Your task to perform on an android device: open app "PUBG MOBILE" Image 0: 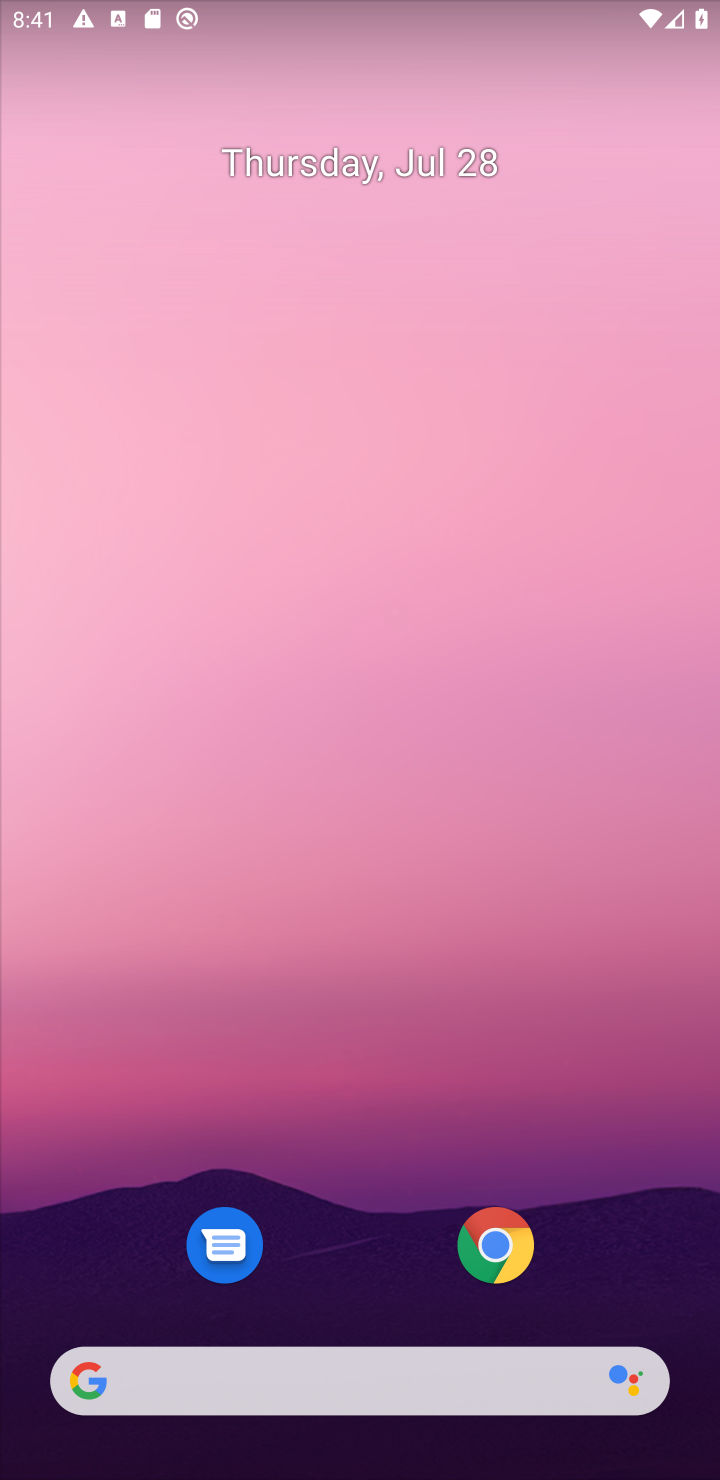
Step 0: press home button
Your task to perform on an android device: open app "PUBG MOBILE" Image 1: 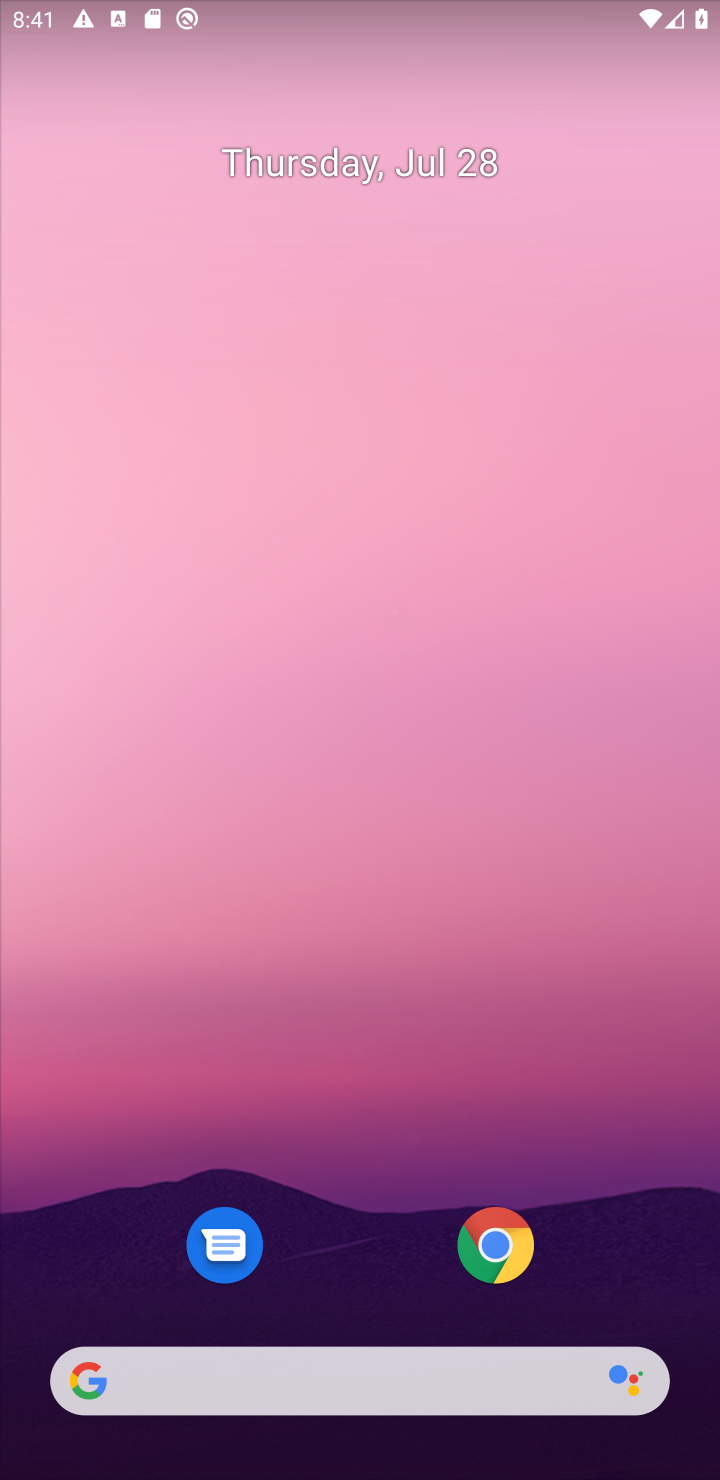
Step 1: drag from (369, 1274) to (497, 322)
Your task to perform on an android device: open app "PUBG MOBILE" Image 2: 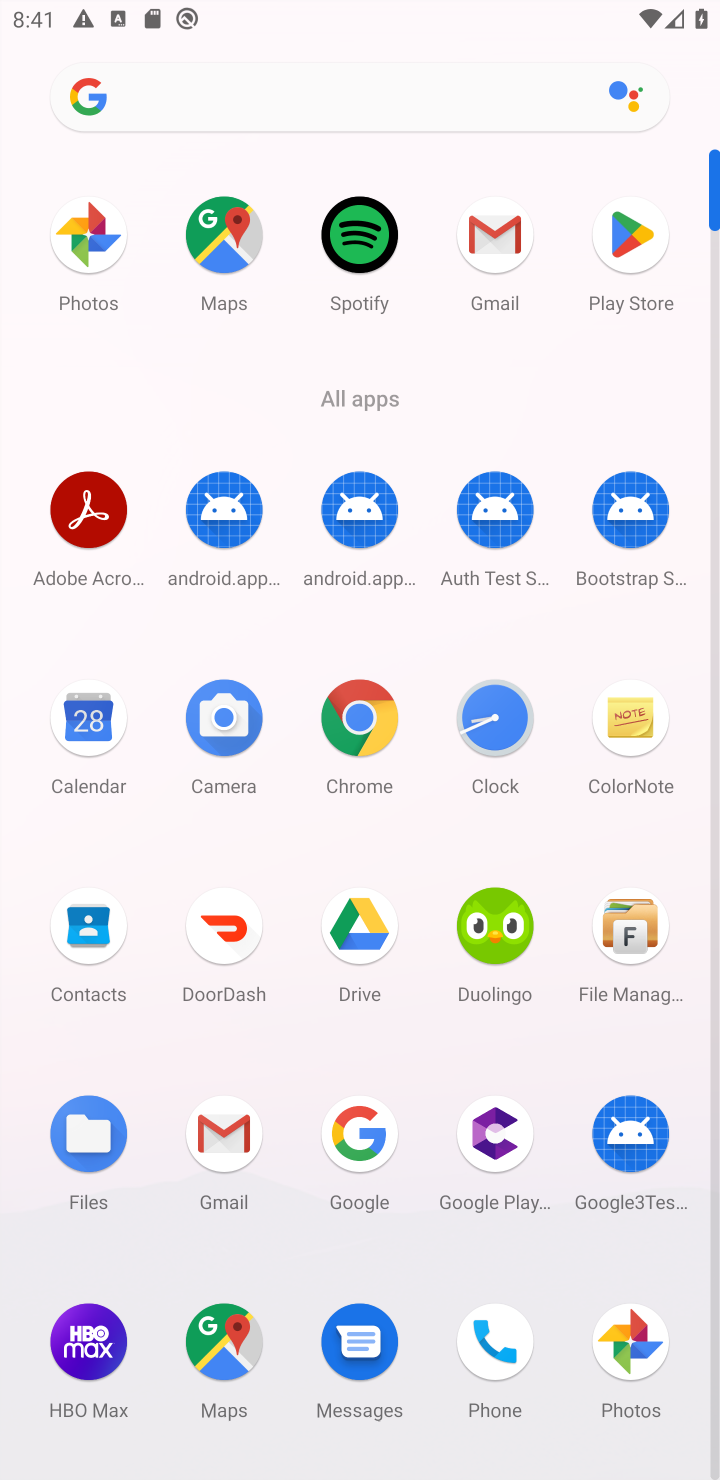
Step 2: click (616, 232)
Your task to perform on an android device: open app "PUBG MOBILE" Image 3: 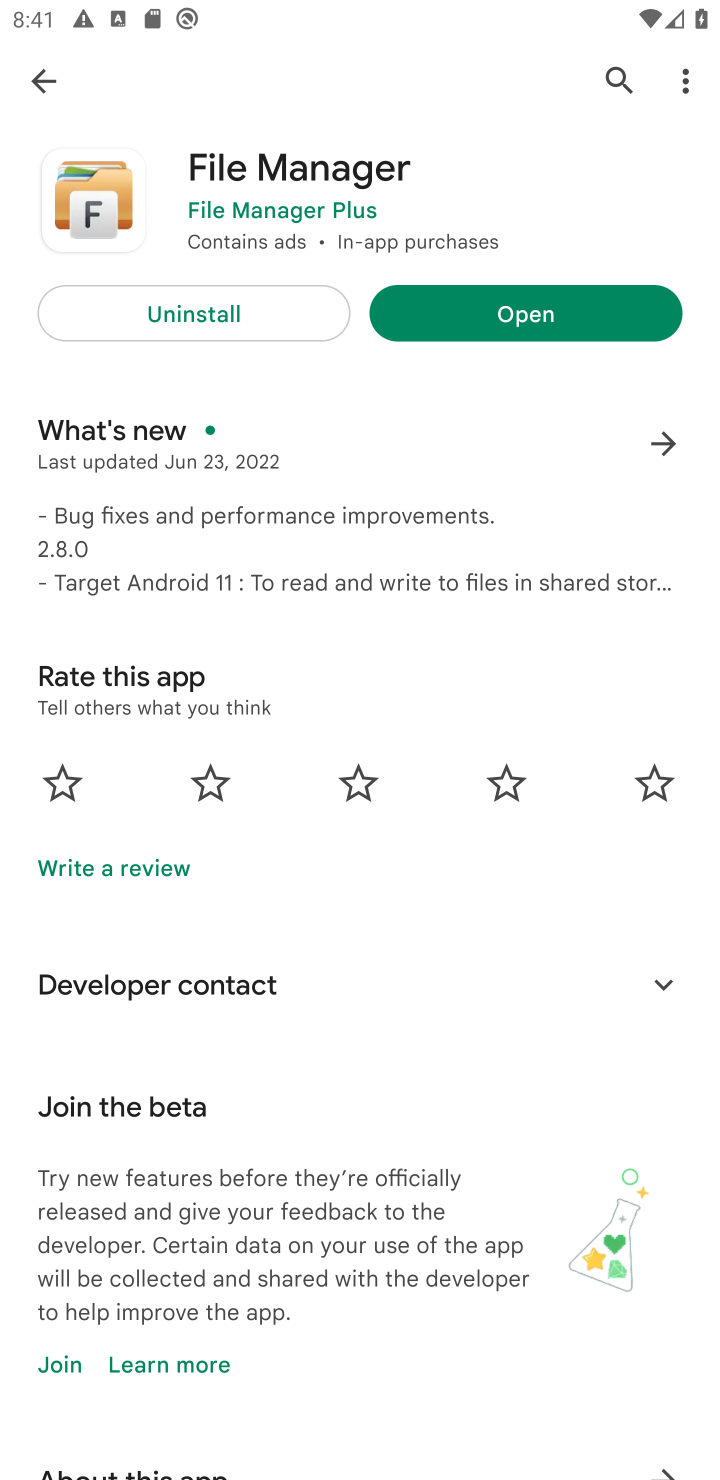
Step 3: click (616, 73)
Your task to perform on an android device: open app "PUBG MOBILE" Image 4: 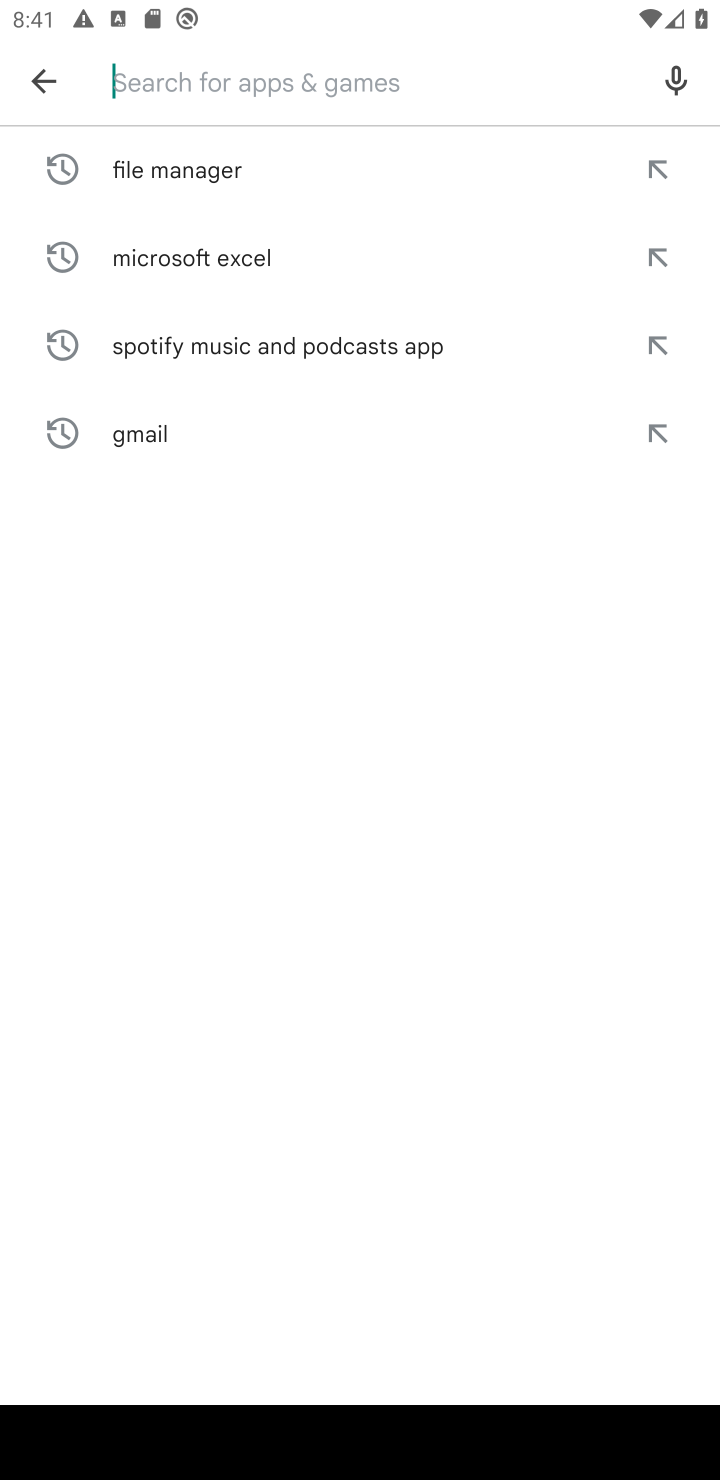
Step 4: type "PUBG MOBILE"
Your task to perform on an android device: open app "PUBG MOBILE" Image 5: 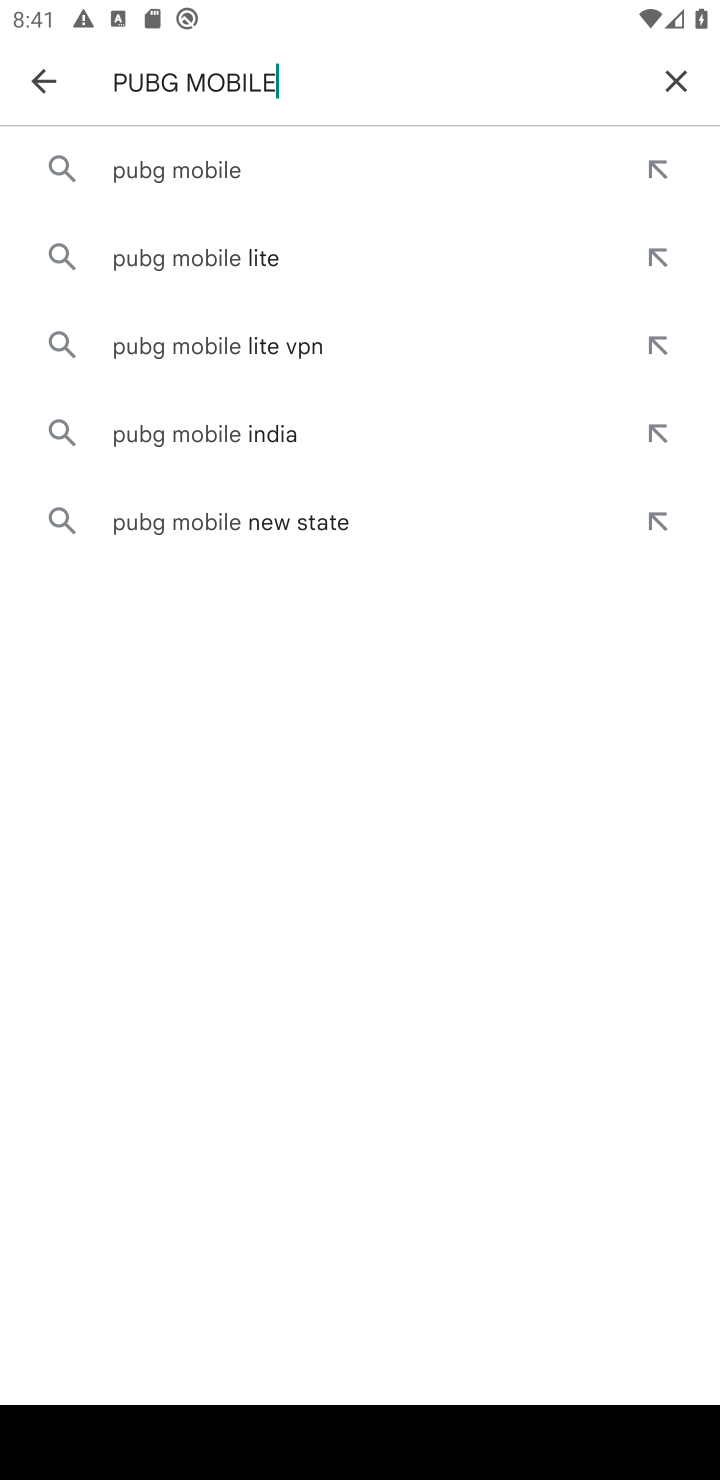
Step 5: click (128, 150)
Your task to perform on an android device: open app "PUBG MOBILE" Image 6: 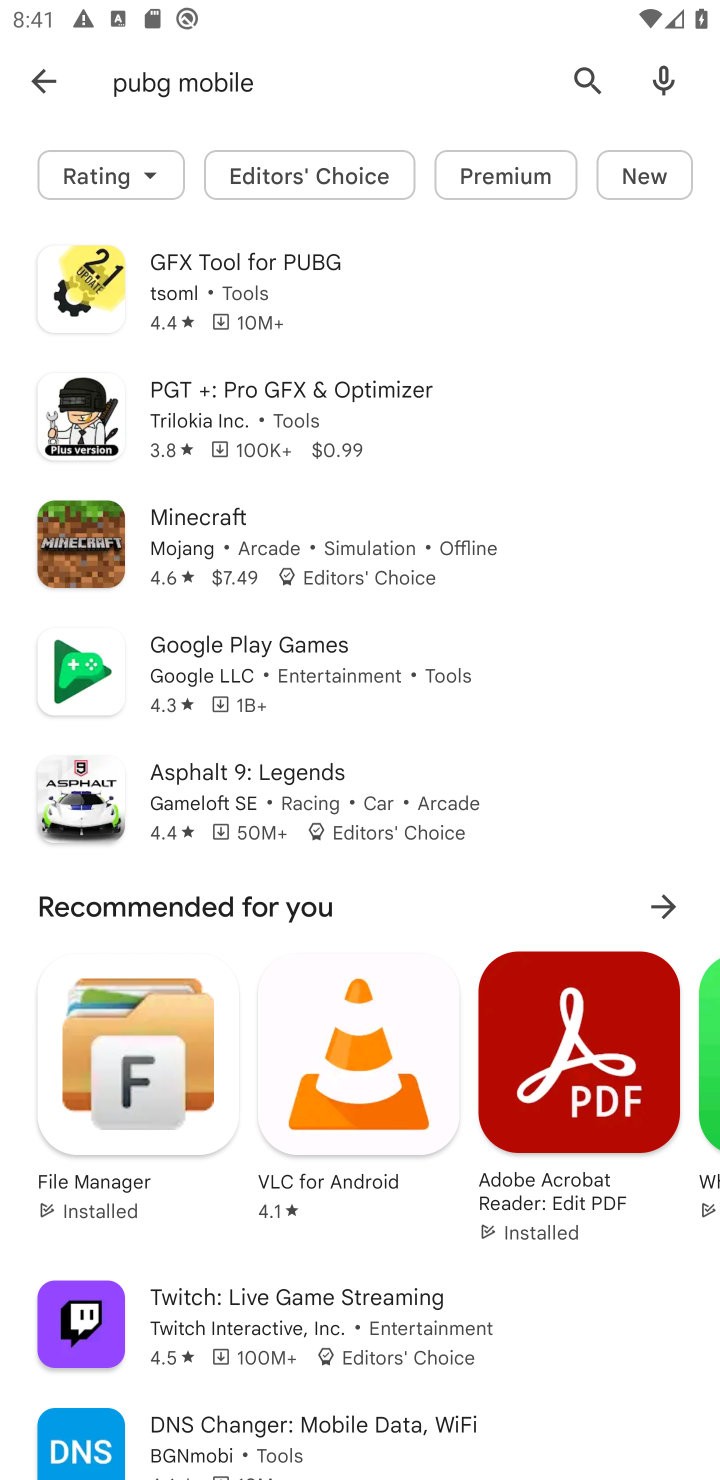
Step 6: task complete